Your task to perform on an android device: open app "Speedtest by Ookla" (install if not already installed) and go to login screen Image 0: 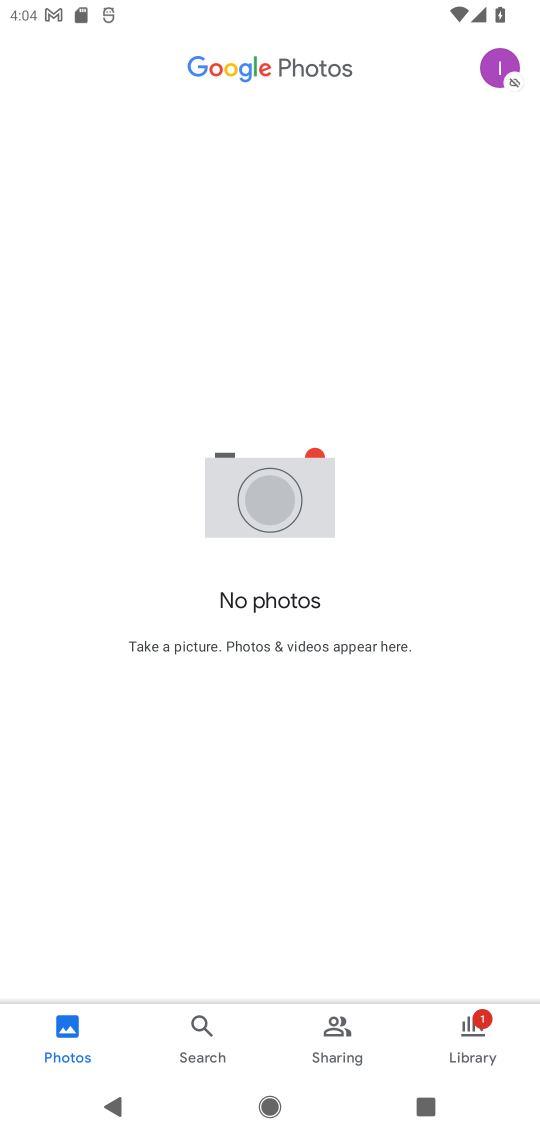
Step 0: press home button
Your task to perform on an android device: open app "Speedtest by Ookla" (install if not already installed) and go to login screen Image 1: 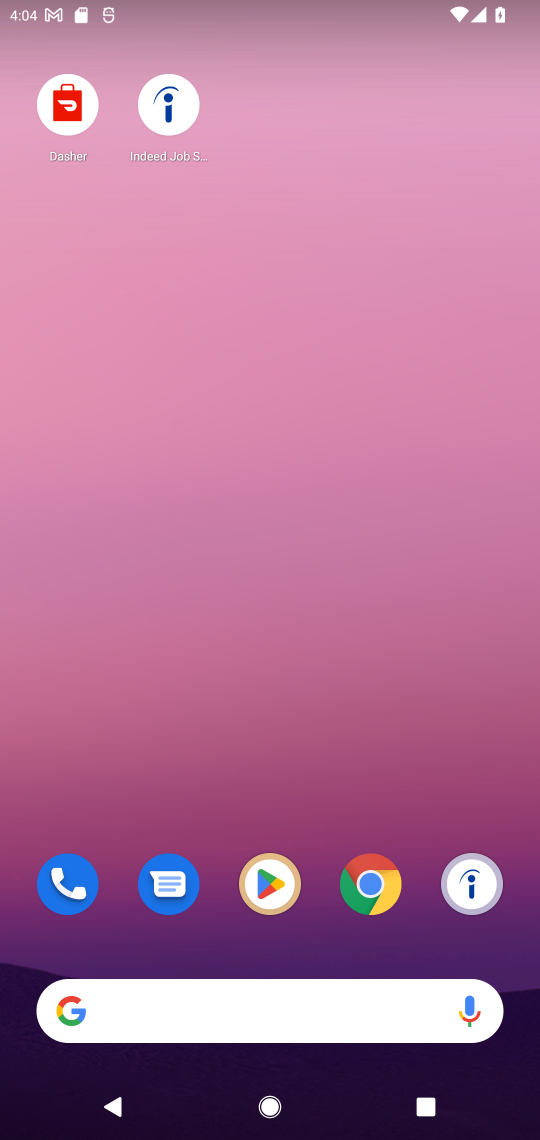
Step 1: click (275, 911)
Your task to perform on an android device: open app "Speedtest by Ookla" (install if not already installed) and go to login screen Image 2: 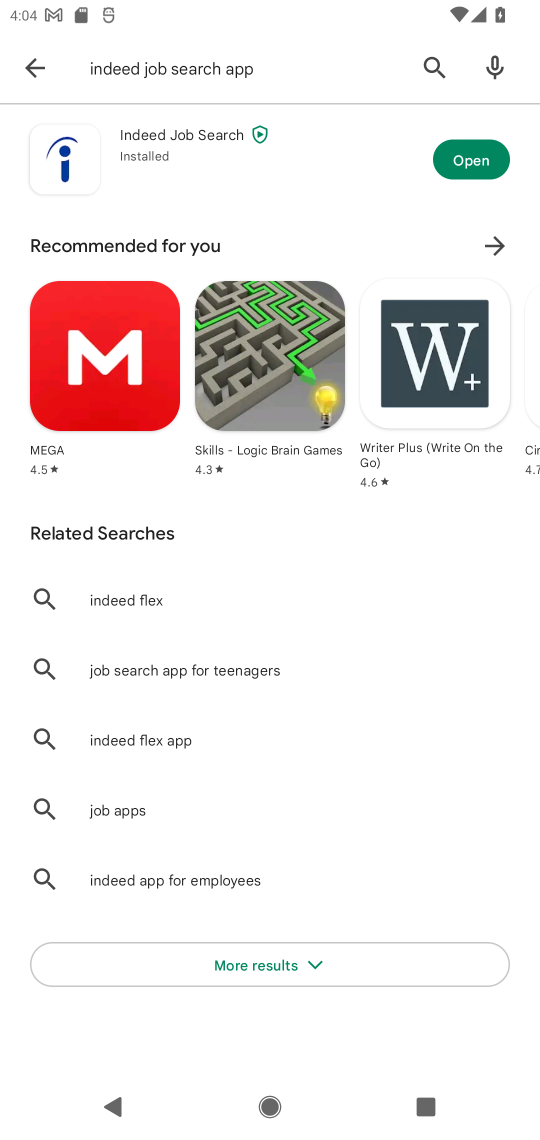
Step 2: click (127, 94)
Your task to perform on an android device: open app "Speedtest by Ookla" (install if not already installed) and go to login screen Image 3: 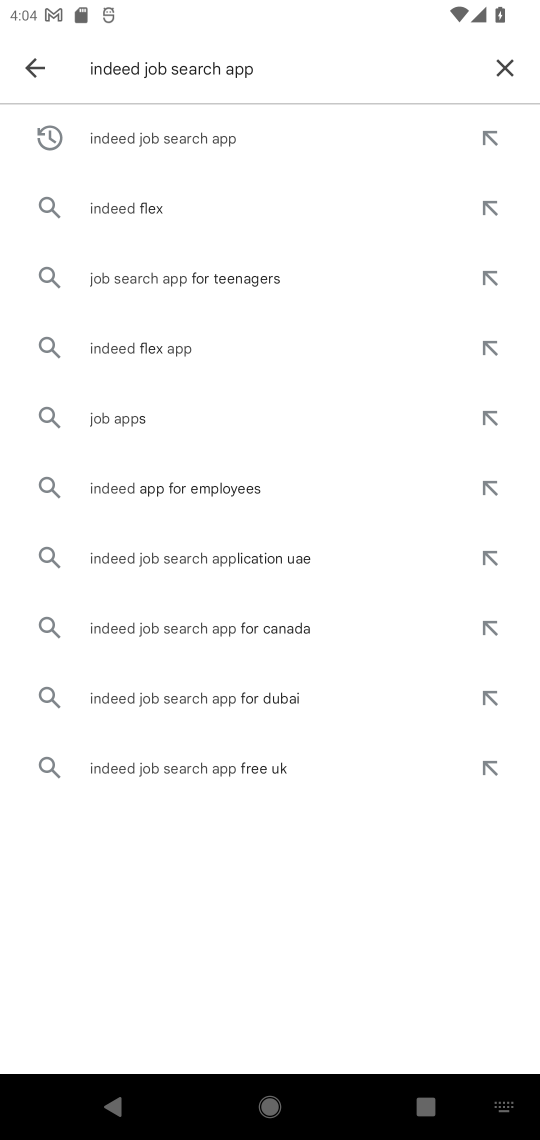
Step 3: click (505, 44)
Your task to perform on an android device: open app "Speedtest by Ookla" (install if not already installed) and go to login screen Image 4: 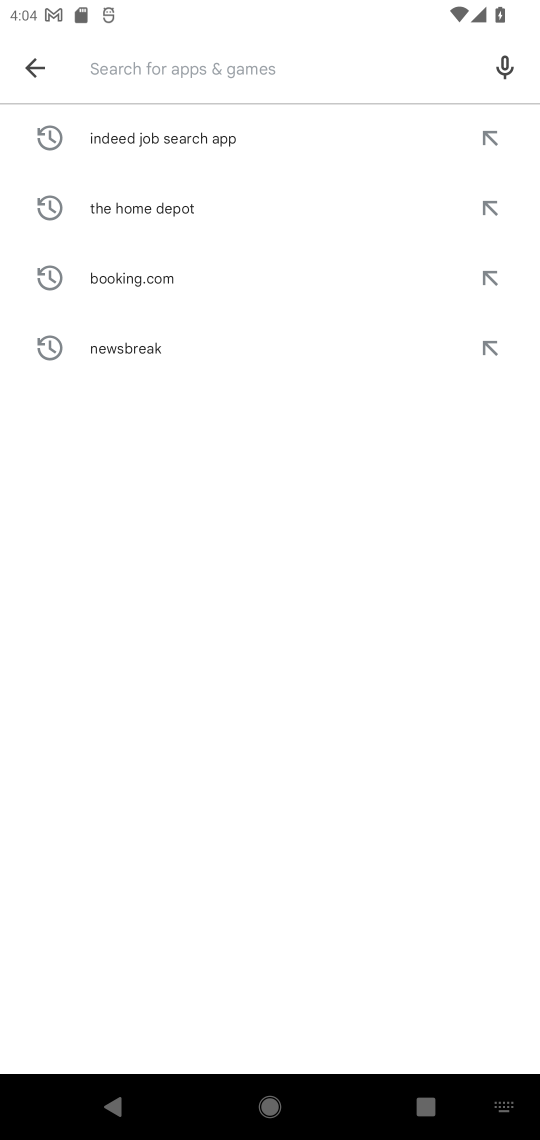
Step 4: type "speedtest by Ookla"
Your task to perform on an android device: open app "Speedtest by Ookla" (install if not already installed) and go to login screen Image 5: 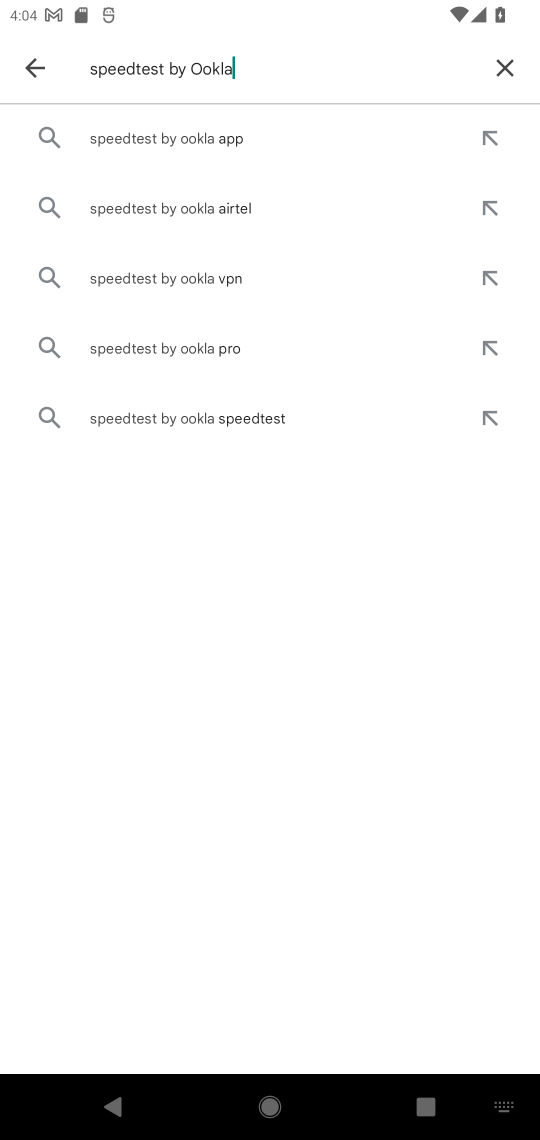
Step 5: click (191, 150)
Your task to perform on an android device: open app "Speedtest by Ookla" (install if not already installed) and go to login screen Image 6: 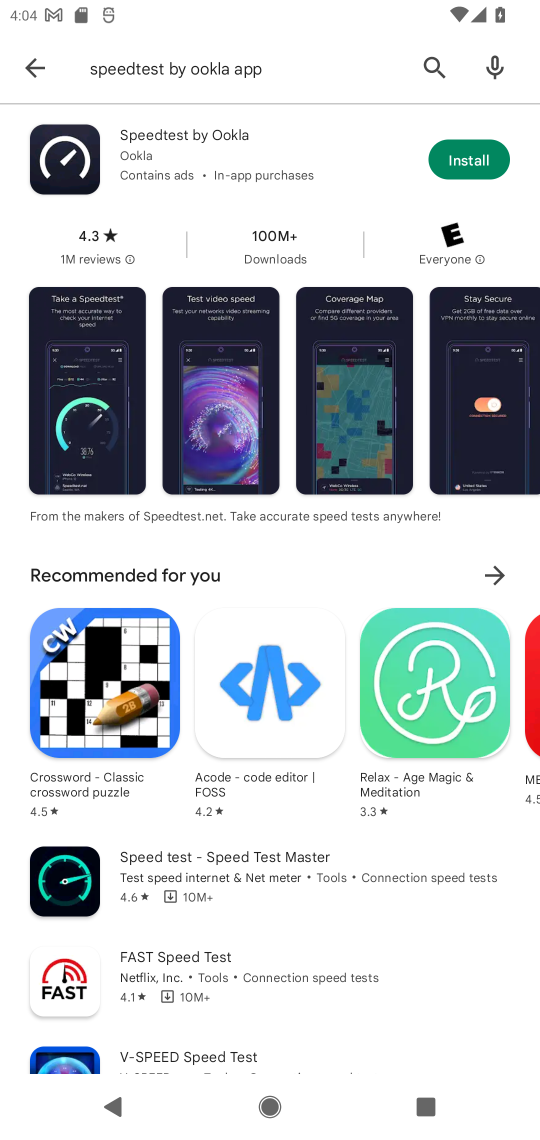
Step 6: click (476, 155)
Your task to perform on an android device: open app "Speedtest by Ookla" (install if not already installed) and go to login screen Image 7: 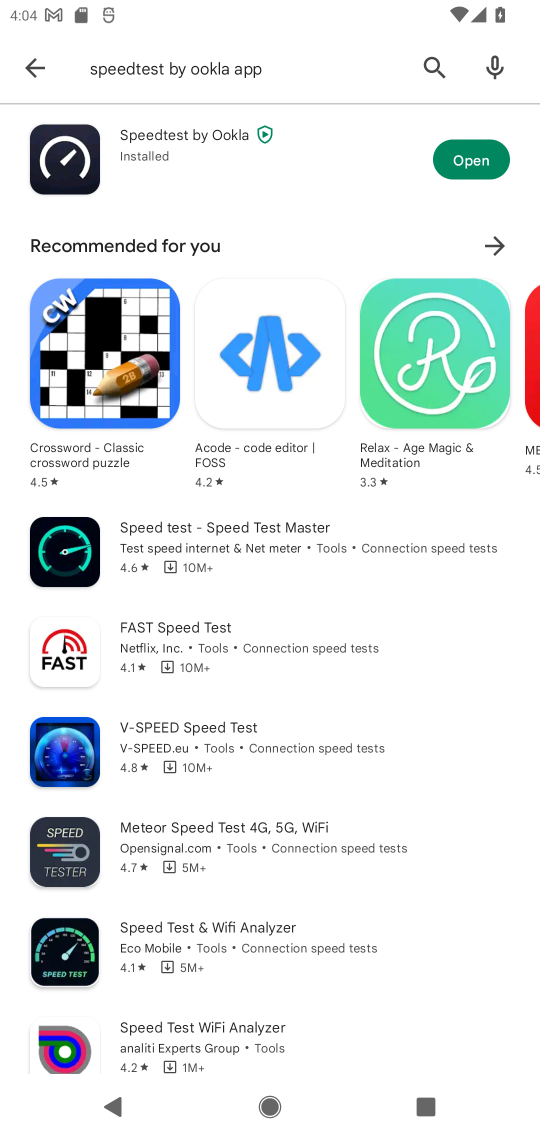
Step 7: click (475, 162)
Your task to perform on an android device: open app "Speedtest by Ookla" (install if not already installed) and go to login screen Image 8: 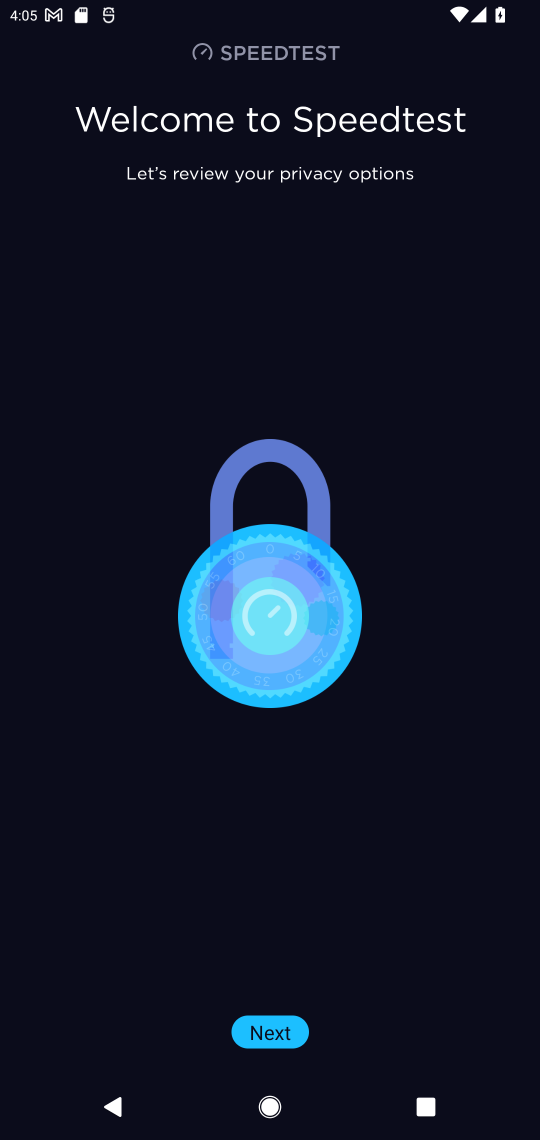
Step 8: click (280, 1024)
Your task to perform on an android device: open app "Speedtest by Ookla" (install if not already installed) and go to login screen Image 9: 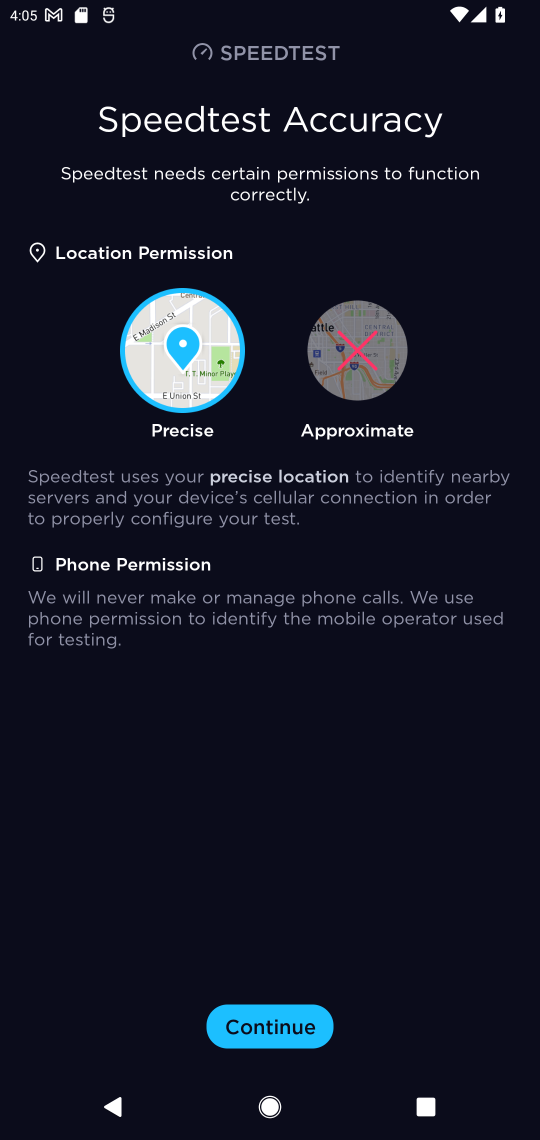
Step 9: click (272, 989)
Your task to perform on an android device: open app "Speedtest by Ookla" (install if not already installed) and go to login screen Image 10: 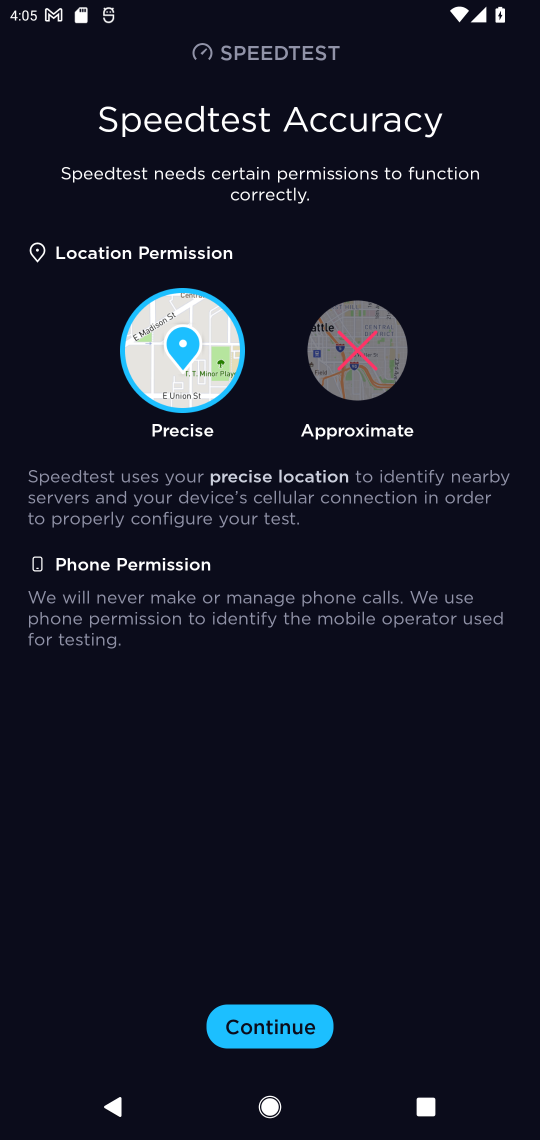
Step 10: click (301, 1029)
Your task to perform on an android device: open app "Speedtest by Ookla" (install if not already installed) and go to login screen Image 11: 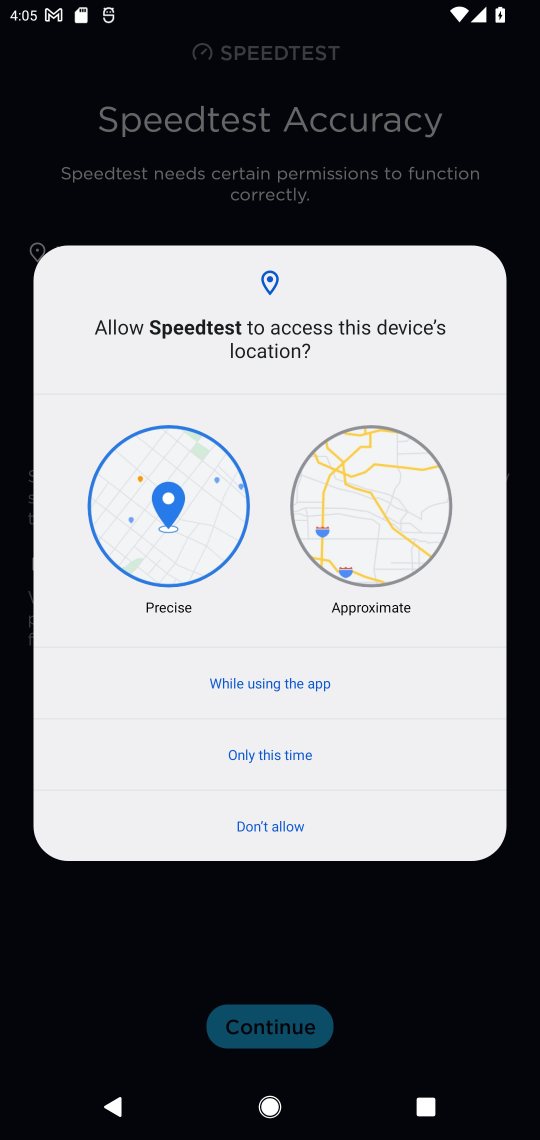
Step 11: click (299, 675)
Your task to perform on an android device: open app "Speedtest by Ookla" (install if not already installed) and go to login screen Image 12: 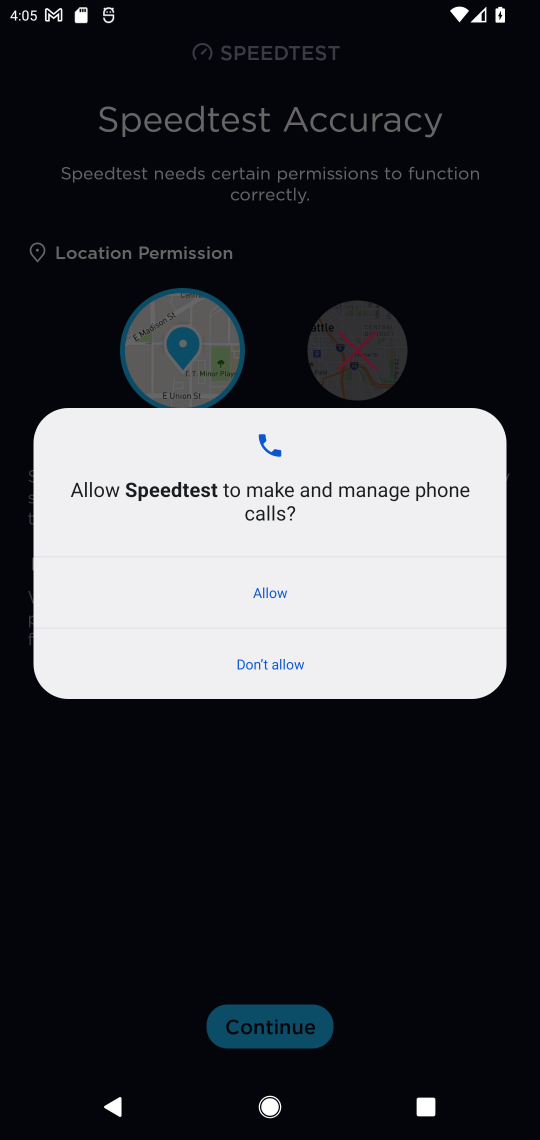
Step 12: click (330, 595)
Your task to perform on an android device: open app "Speedtest by Ookla" (install if not already installed) and go to login screen Image 13: 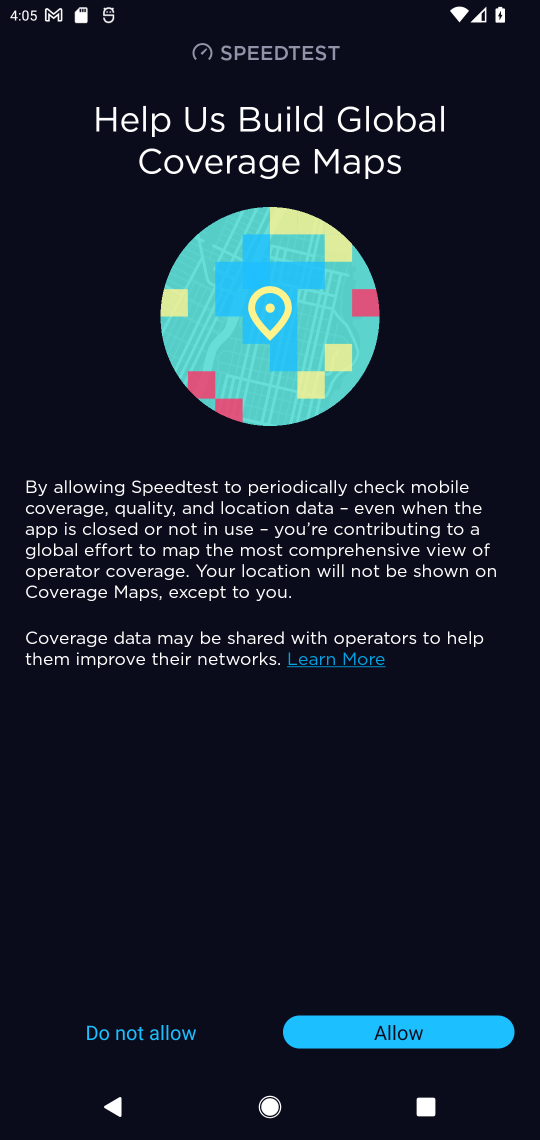
Step 13: click (460, 1028)
Your task to perform on an android device: open app "Speedtest by Ookla" (install if not already installed) and go to login screen Image 14: 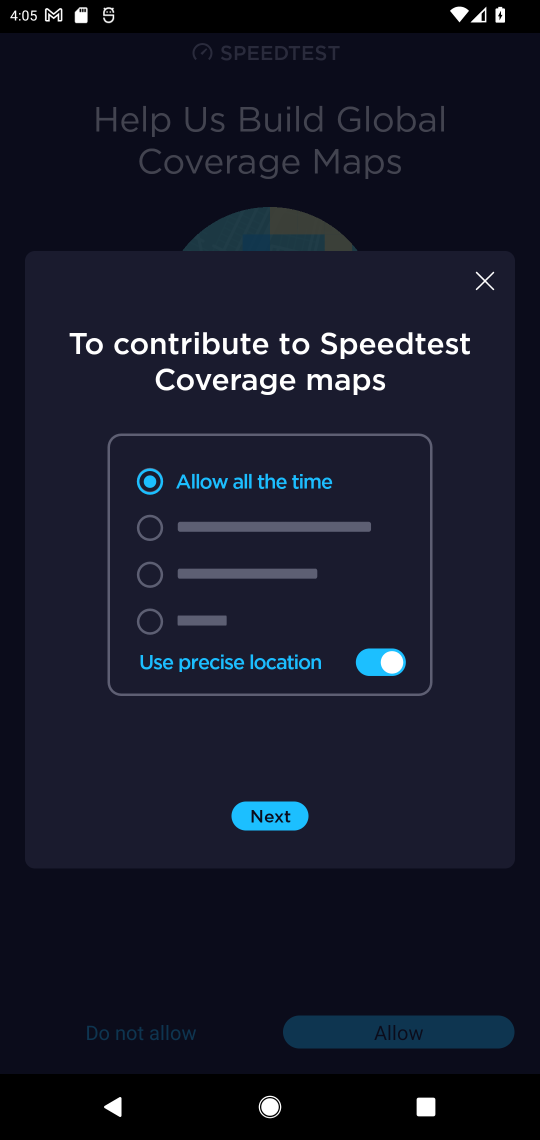
Step 14: click (255, 811)
Your task to perform on an android device: open app "Speedtest by Ookla" (install if not already installed) and go to login screen Image 15: 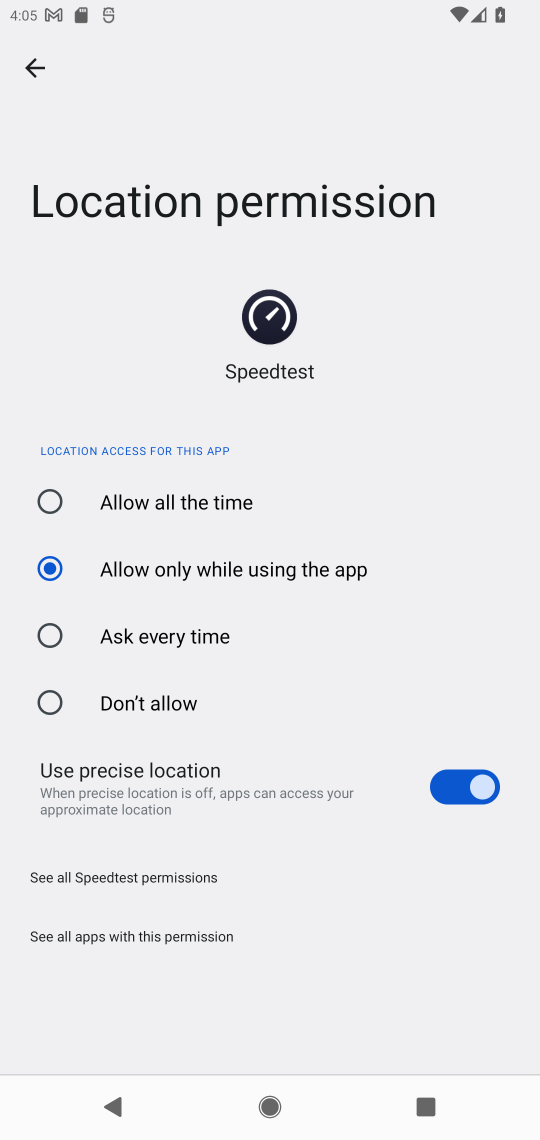
Step 15: click (25, 78)
Your task to perform on an android device: open app "Speedtest by Ookla" (install if not already installed) and go to login screen Image 16: 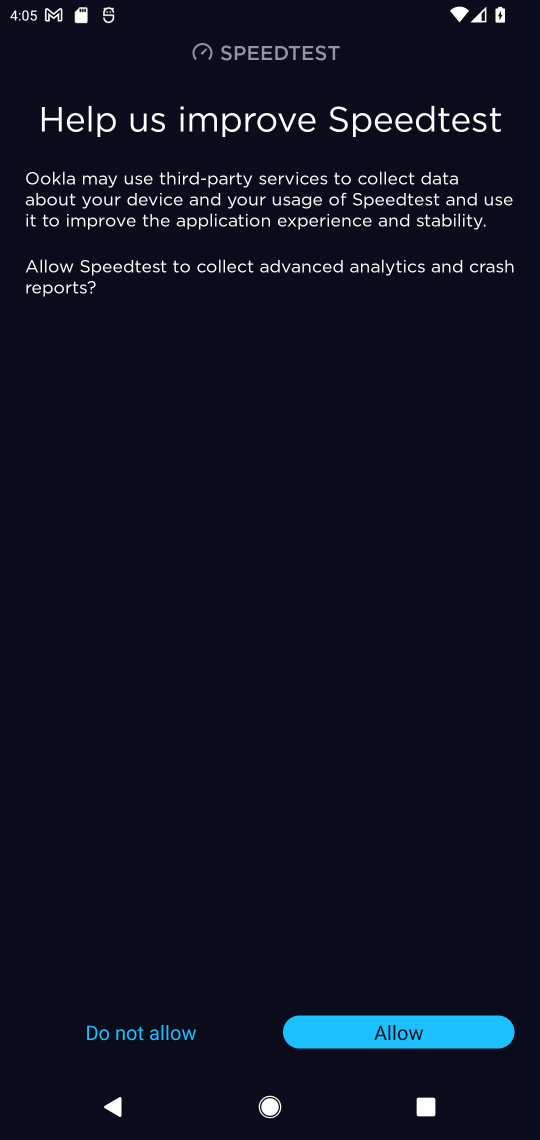
Step 16: click (406, 1025)
Your task to perform on an android device: open app "Speedtest by Ookla" (install if not already installed) and go to login screen Image 17: 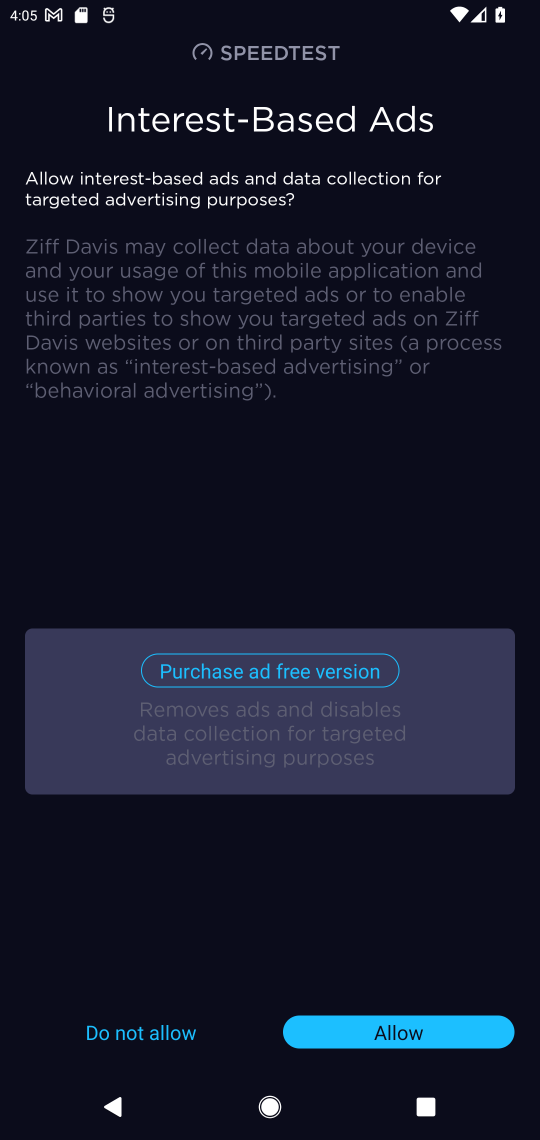
Step 17: click (410, 1032)
Your task to perform on an android device: open app "Speedtest by Ookla" (install if not already installed) and go to login screen Image 18: 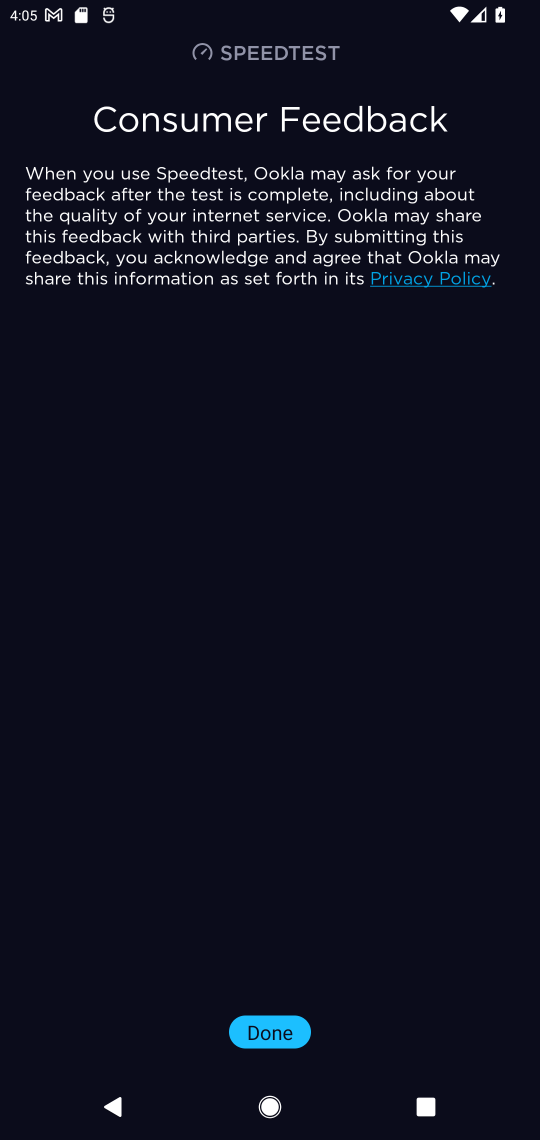
Step 18: click (272, 1058)
Your task to perform on an android device: open app "Speedtest by Ookla" (install if not already installed) and go to login screen Image 19: 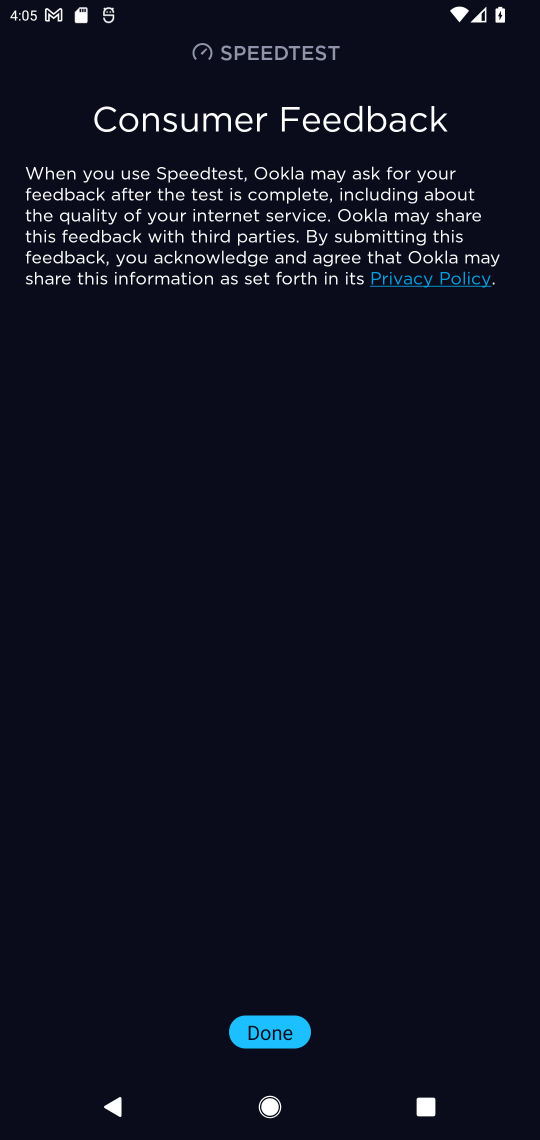
Step 19: click (281, 1026)
Your task to perform on an android device: open app "Speedtest by Ookla" (install if not already installed) and go to login screen Image 20: 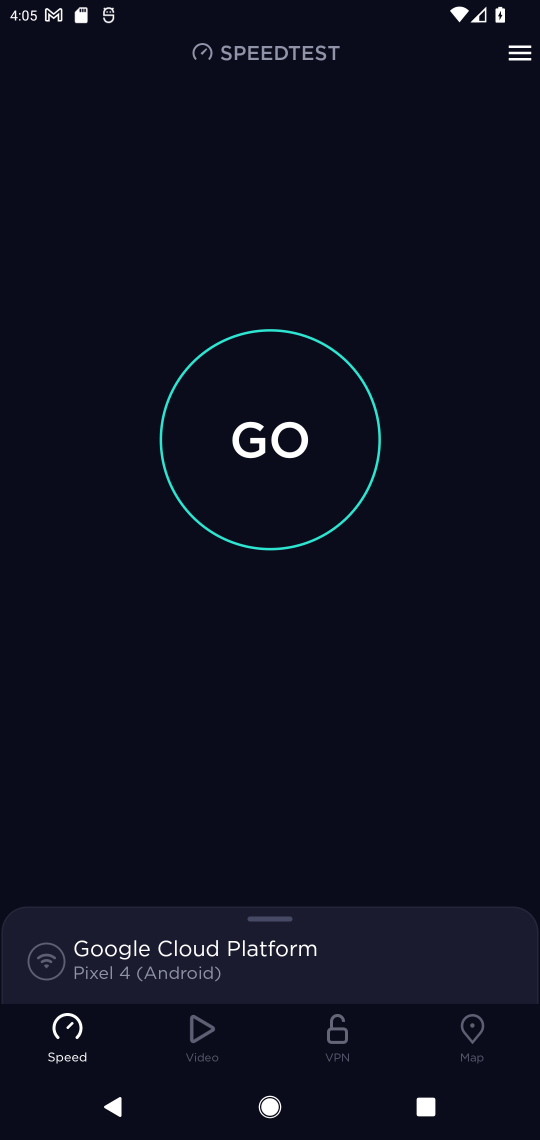
Step 20: click (516, 56)
Your task to perform on an android device: open app "Speedtest by Ookla" (install if not already installed) and go to login screen Image 21: 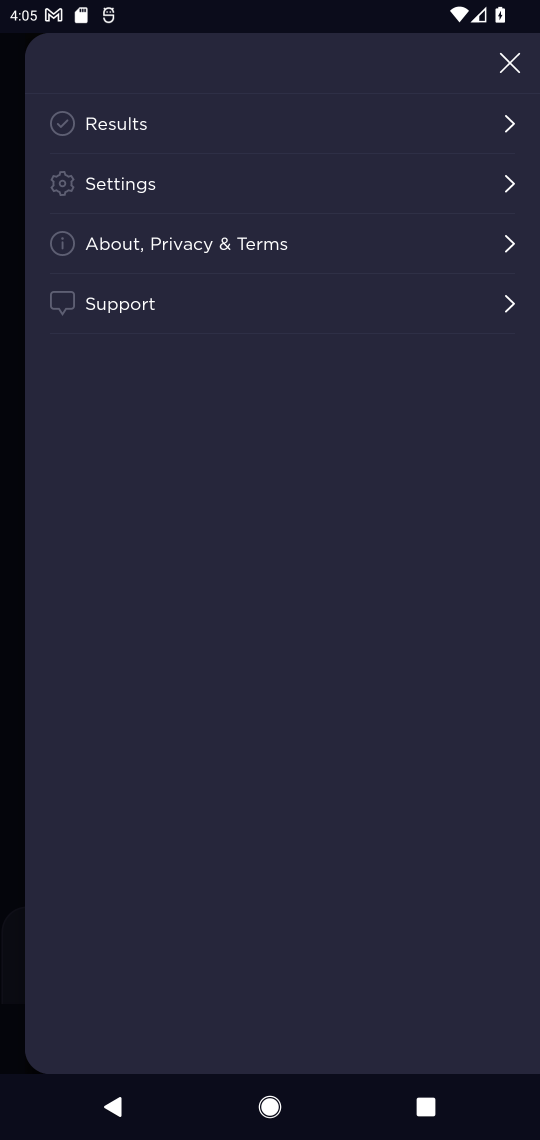
Step 21: click (171, 189)
Your task to perform on an android device: open app "Speedtest by Ookla" (install if not already installed) and go to login screen Image 22: 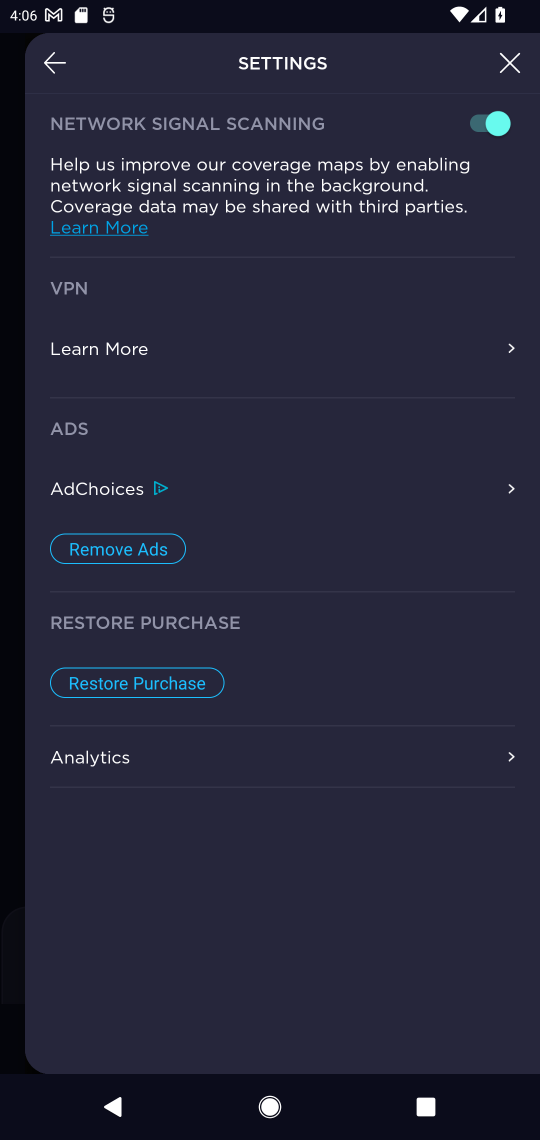
Step 22: click (162, 750)
Your task to perform on an android device: open app "Speedtest by Ookla" (install if not already installed) and go to login screen Image 23: 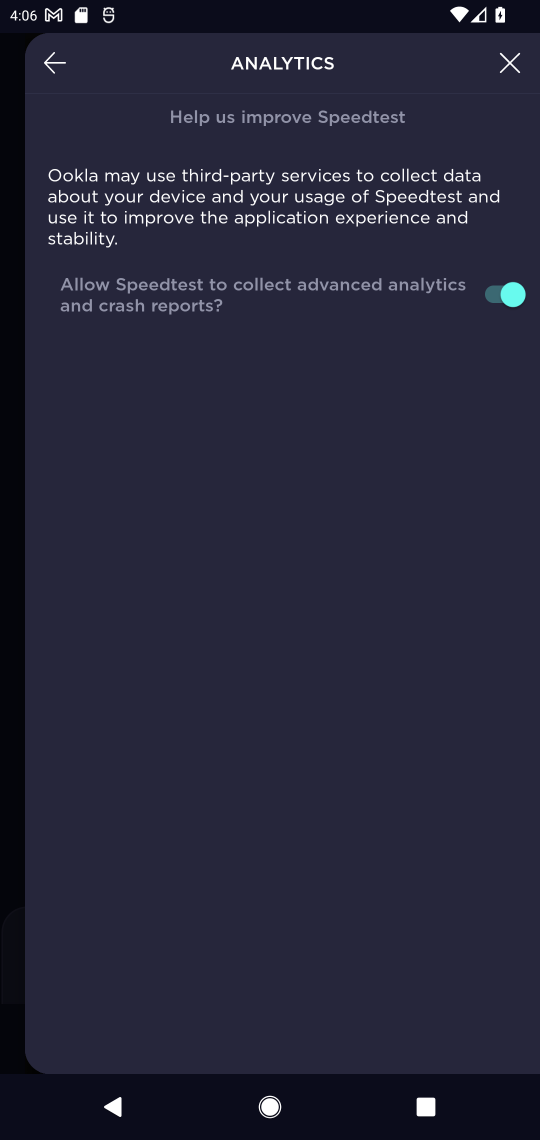
Step 23: task complete